Your task to perform on an android device: What is the news today? Image 0: 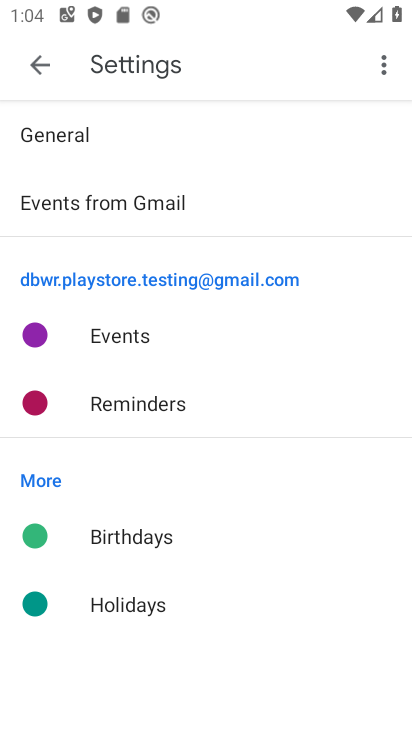
Step 0: press home button
Your task to perform on an android device: What is the news today? Image 1: 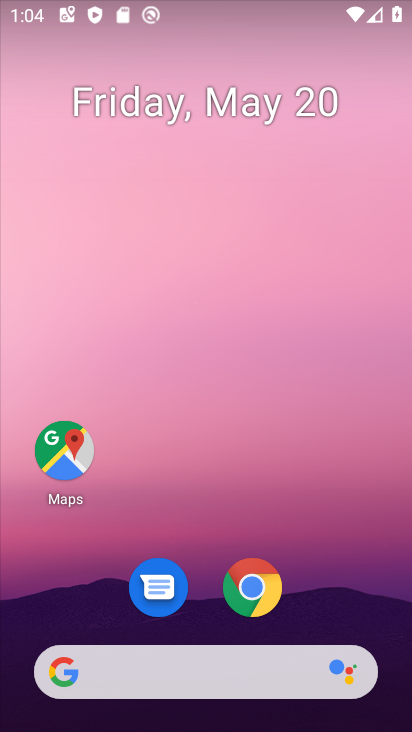
Step 1: click (166, 663)
Your task to perform on an android device: What is the news today? Image 2: 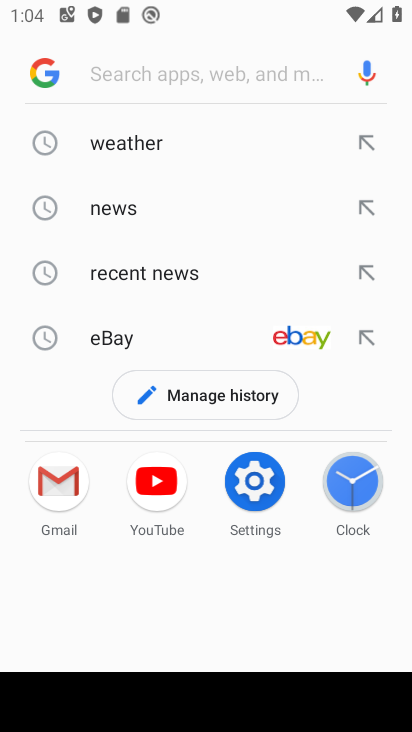
Step 2: click (118, 208)
Your task to perform on an android device: What is the news today? Image 3: 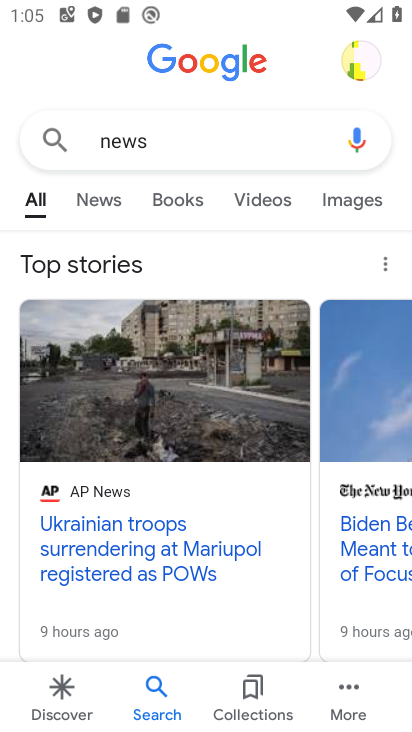
Step 3: click (234, 195)
Your task to perform on an android device: What is the news today? Image 4: 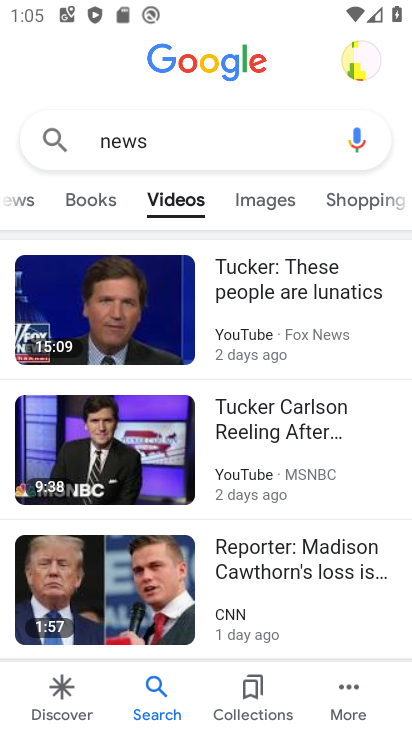
Step 4: task complete